Your task to perform on an android device: set the timer Image 0: 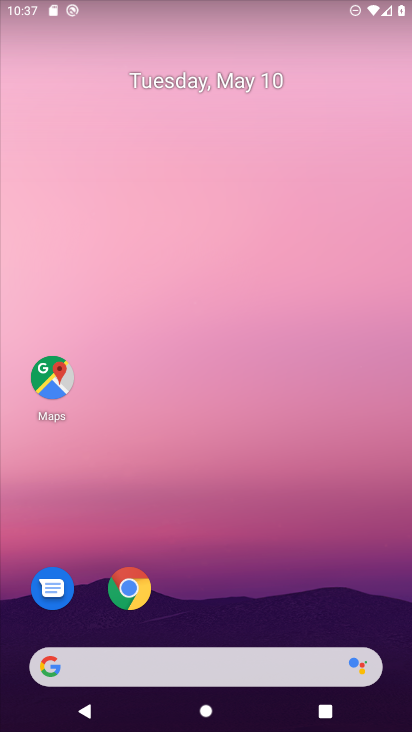
Step 0: drag from (218, 600) to (168, 163)
Your task to perform on an android device: set the timer Image 1: 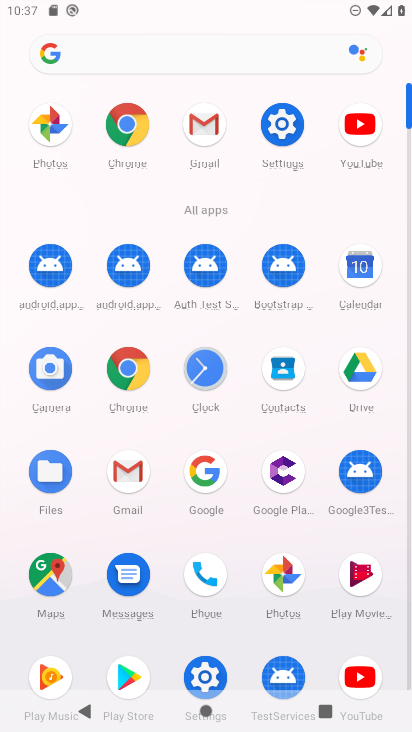
Step 1: click (196, 373)
Your task to perform on an android device: set the timer Image 2: 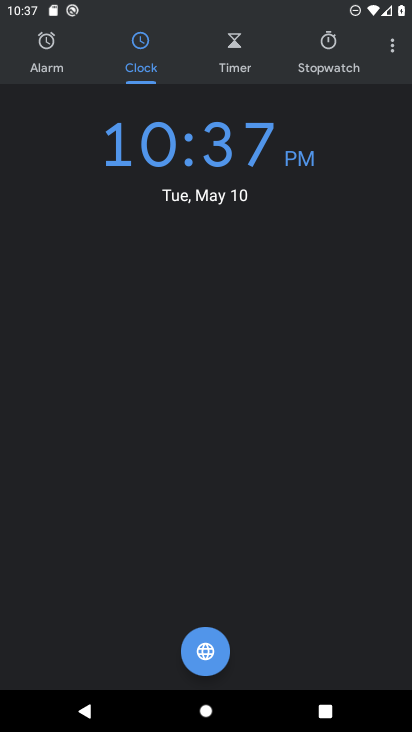
Step 2: click (382, 51)
Your task to perform on an android device: set the timer Image 3: 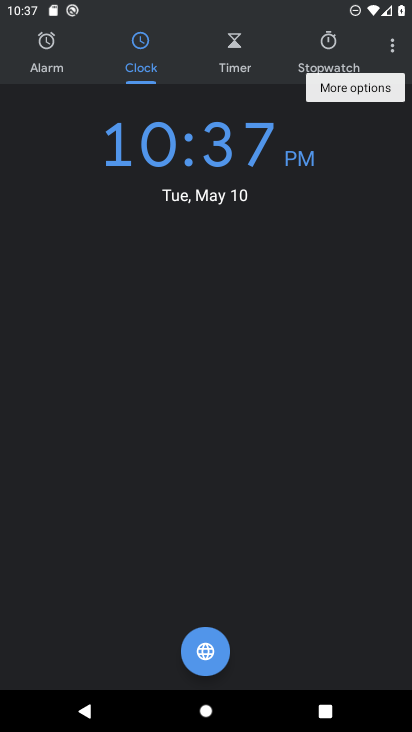
Step 3: click (249, 29)
Your task to perform on an android device: set the timer Image 4: 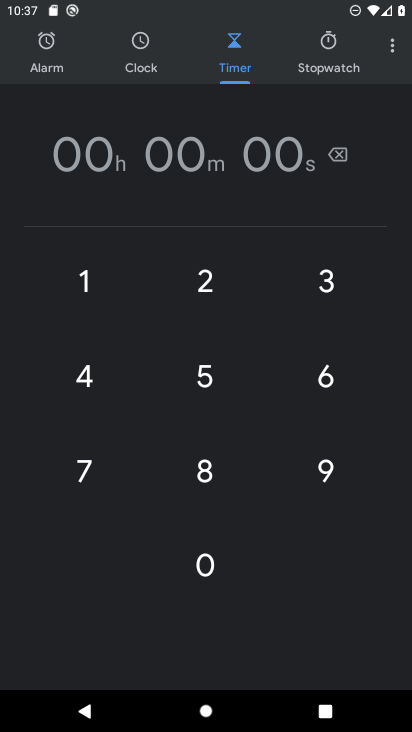
Step 4: click (259, 153)
Your task to perform on an android device: set the timer Image 5: 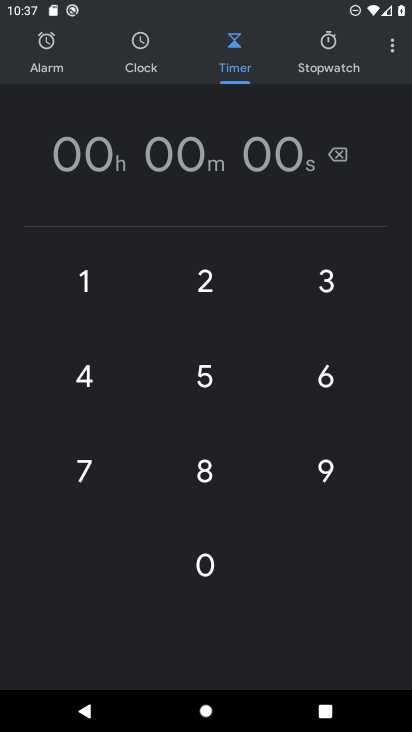
Step 5: type "24"
Your task to perform on an android device: set the timer Image 6: 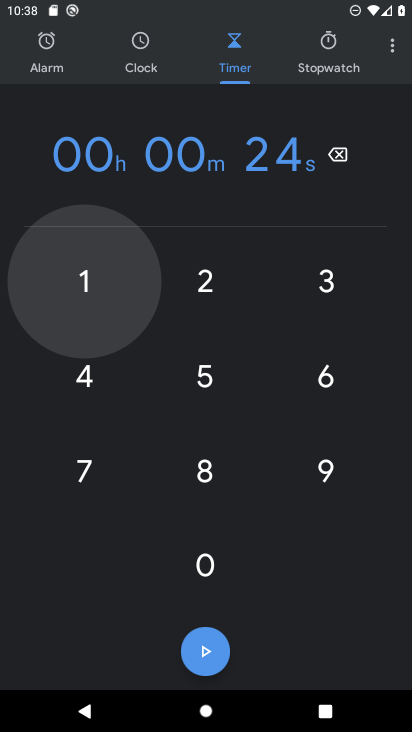
Step 6: click (211, 633)
Your task to perform on an android device: set the timer Image 7: 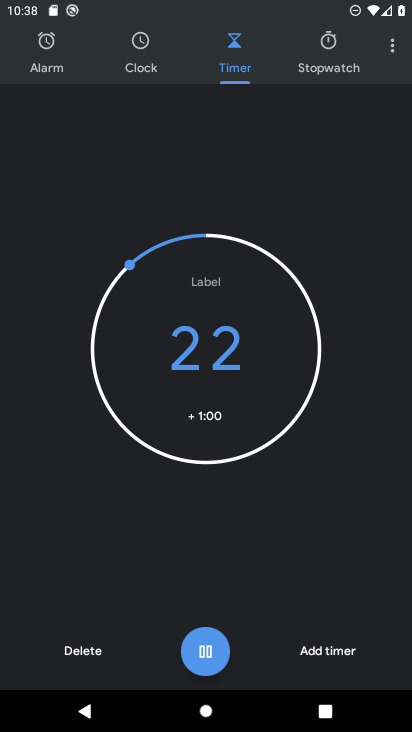
Step 7: task complete